Your task to perform on an android device: turn on translation in the chrome app Image 0: 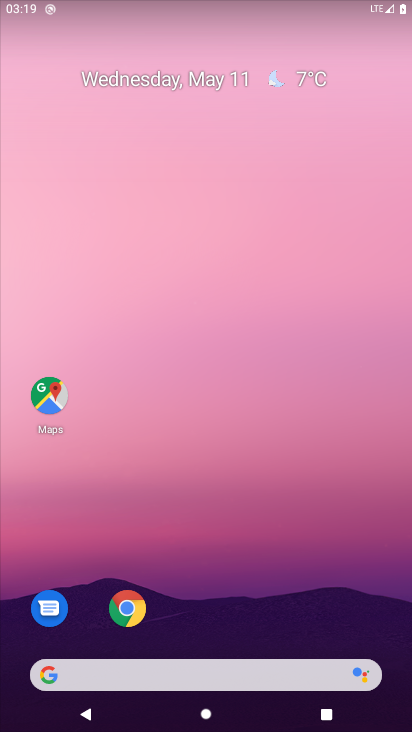
Step 0: press home button
Your task to perform on an android device: turn on translation in the chrome app Image 1: 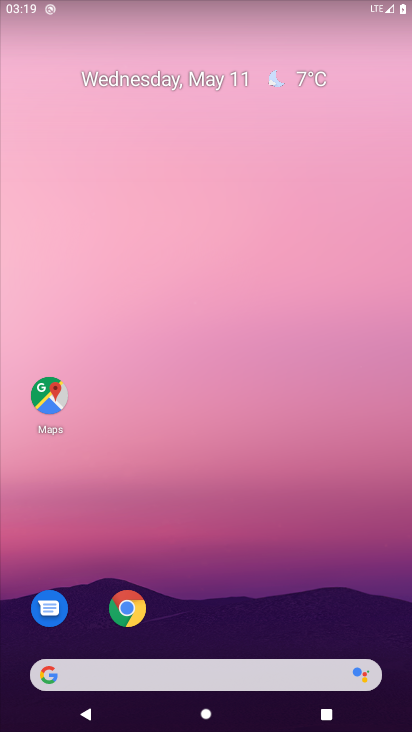
Step 1: click (126, 604)
Your task to perform on an android device: turn on translation in the chrome app Image 2: 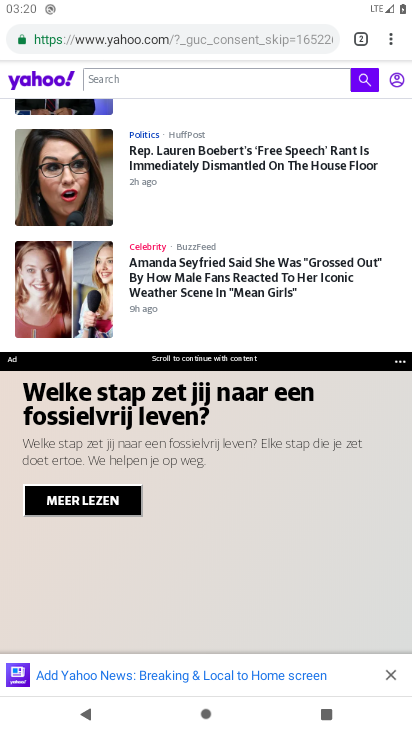
Step 2: click (390, 33)
Your task to perform on an android device: turn on translation in the chrome app Image 3: 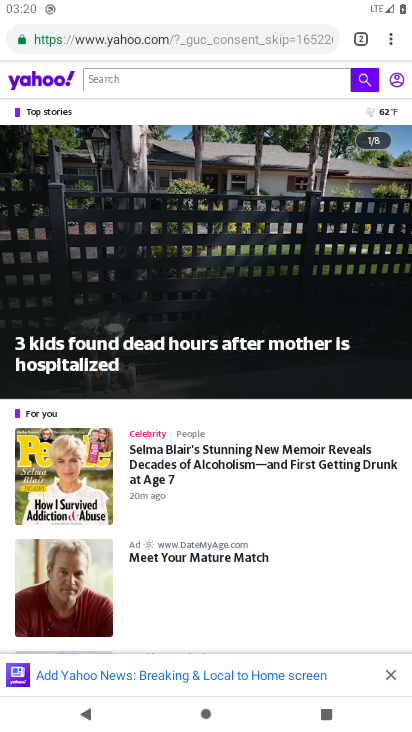
Step 3: click (390, 36)
Your task to perform on an android device: turn on translation in the chrome app Image 4: 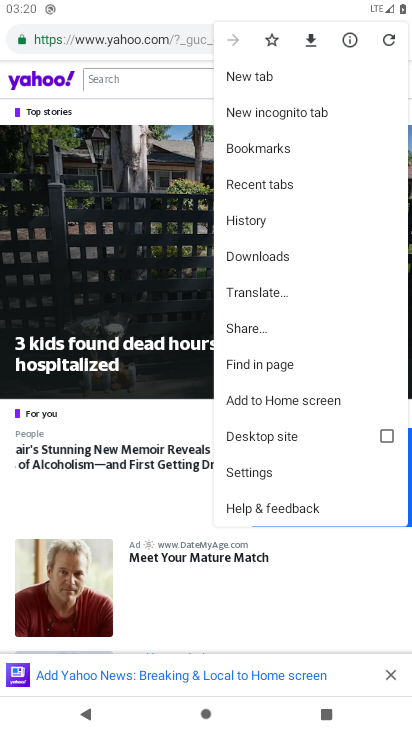
Step 4: click (273, 466)
Your task to perform on an android device: turn on translation in the chrome app Image 5: 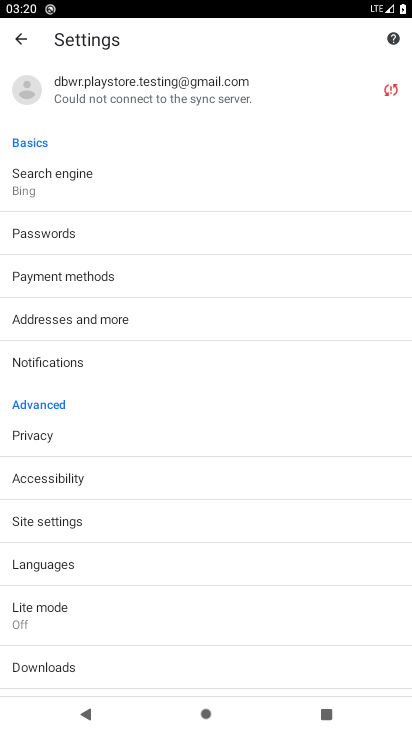
Step 5: click (83, 561)
Your task to perform on an android device: turn on translation in the chrome app Image 6: 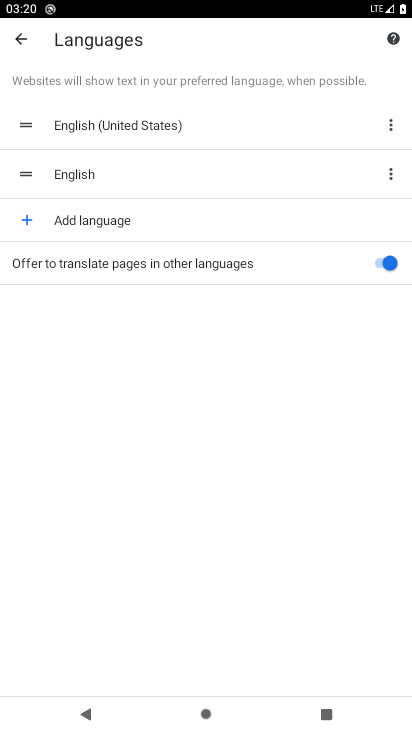
Step 6: task complete